Your task to perform on an android device: toggle notification dots Image 0: 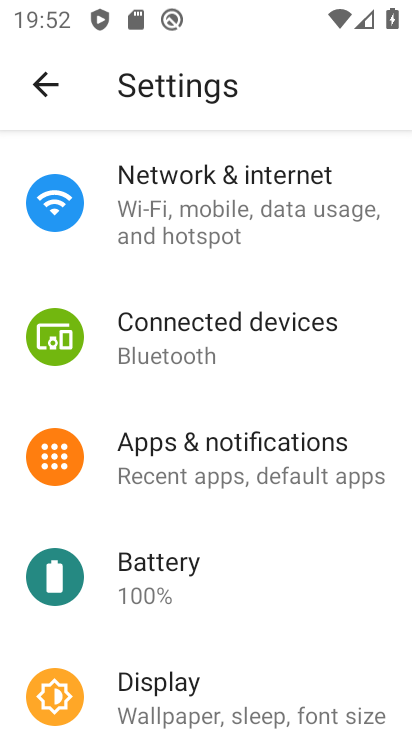
Step 0: drag from (340, 602) to (312, 220)
Your task to perform on an android device: toggle notification dots Image 1: 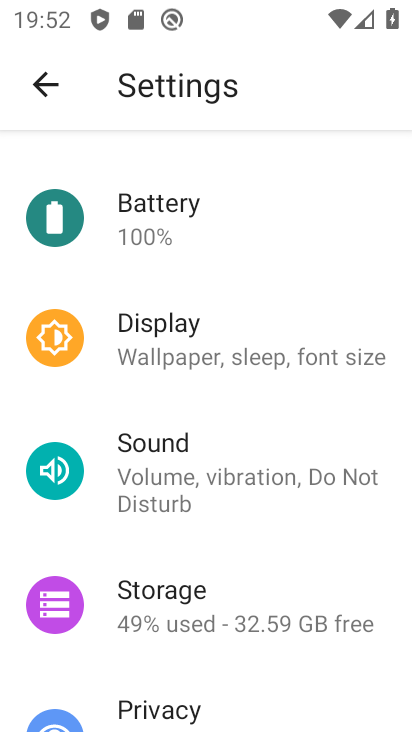
Step 1: drag from (314, 137) to (283, 564)
Your task to perform on an android device: toggle notification dots Image 2: 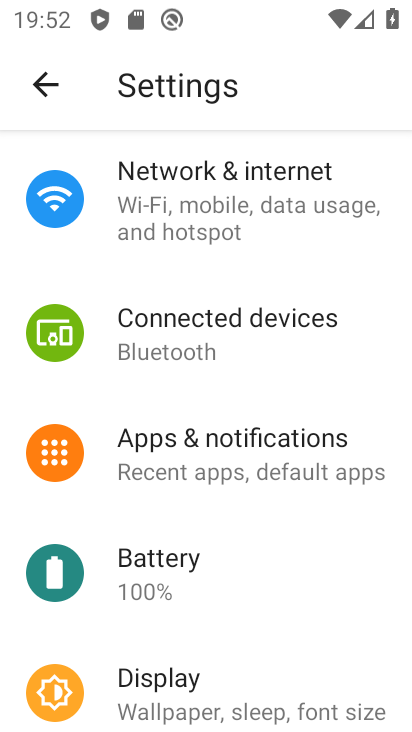
Step 2: click (222, 439)
Your task to perform on an android device: toggle notification dots Image 3: 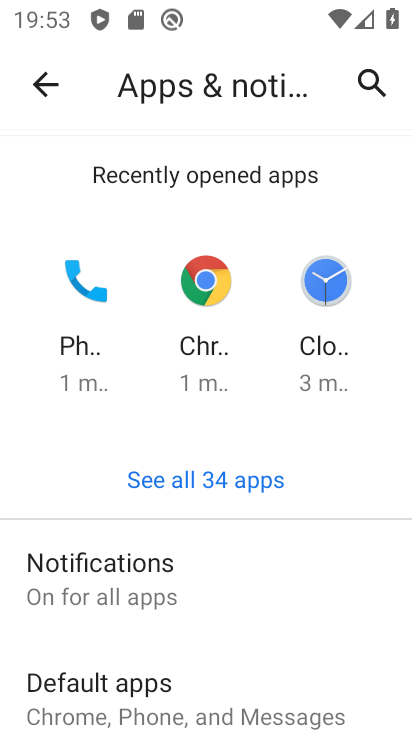
Step 3: click (191, 587)
Your task to perform on an android device: toggle notification dots Image 4: 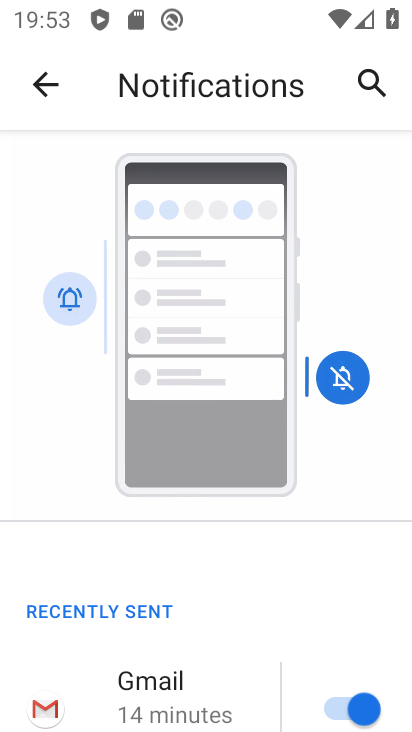
Step 4: drag from (280, 629) to (252, 131)
Your task to perform on an android device: toggle notification dots Image 5: 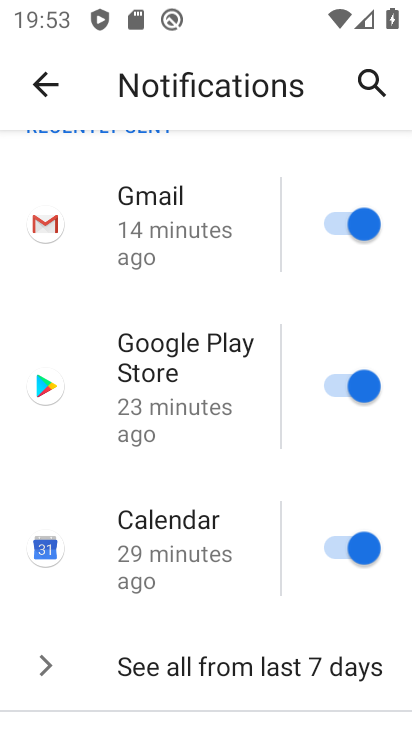
Step 5: drag from (252, 634) to (264, 130)
Your task to perform on an android device: toggle notification dots Image 6: 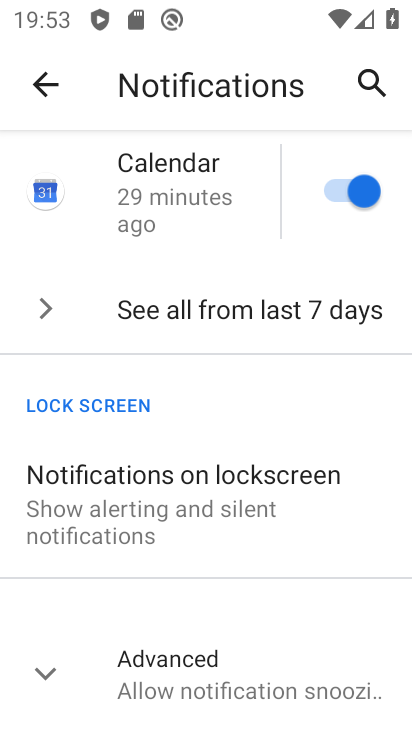
Step 6: drag from (239, 657) to (230, 293)
Your task to perform on an android device: toggle notification dots Image 7: 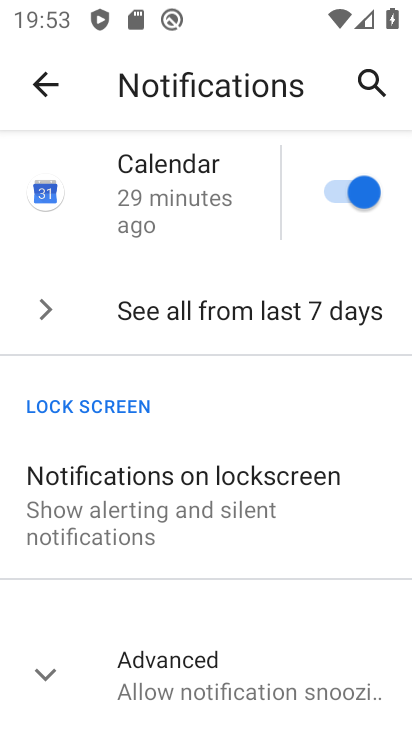
Step 7: click (226, 670)
Your task to perform on an android device: toggle notification dots Image 8: 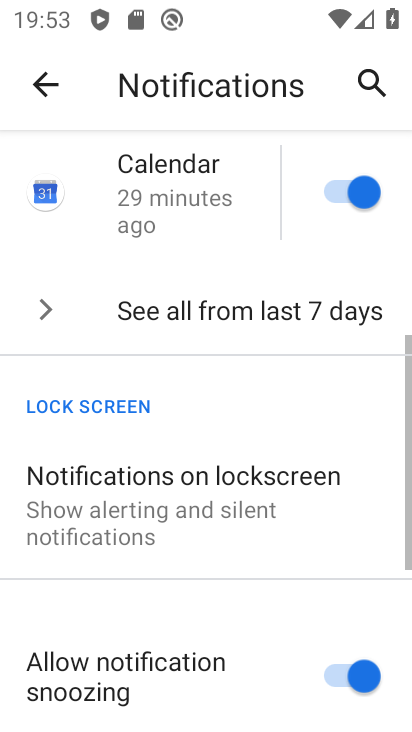
Step 8: drag from (229, 638) to (225, 172)
Your task to perform on an android device: toggle notification dots Image 9: 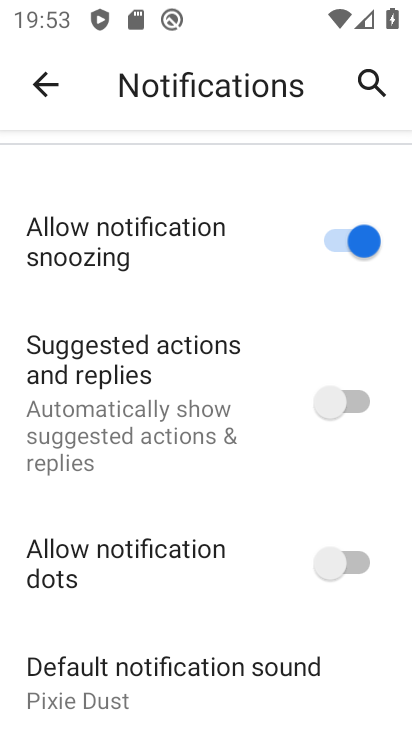
Step 9: drag from (190, 591) to (223, 223)
Your task to perform on an android device: toggle notification dots Image 10: 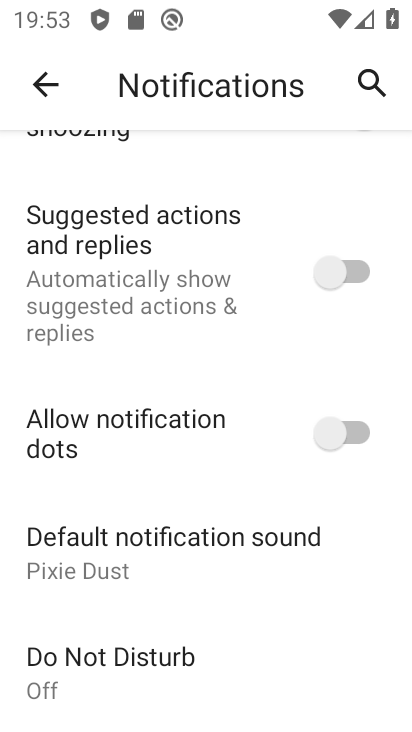
Step 10: click (360, 435)
Your task to perform on an android device: toggle notification dots Image 11: 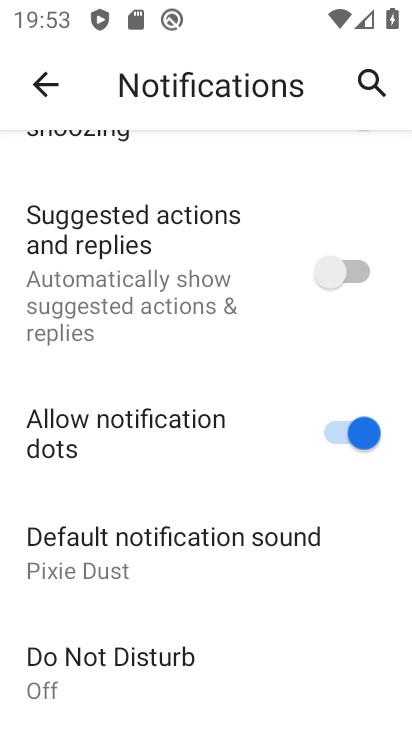
Step 11: task complete